Your task to perform on an android device: When is my next appointment? Image 0: 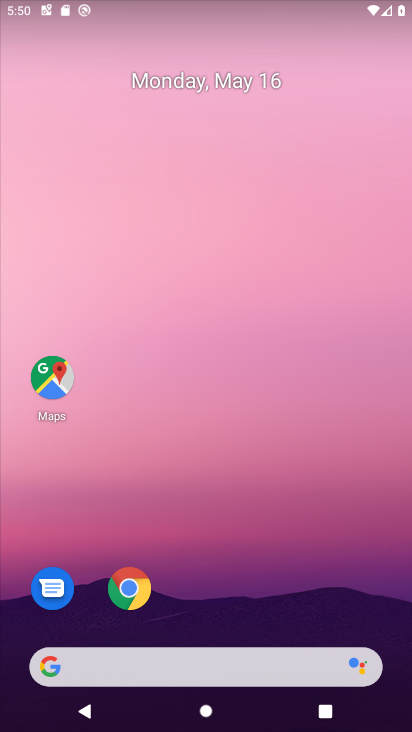
Step 0: drag from (266, 333) to (242, 20)
Your task to perform on an android device: When is my next appointment? Image 1: 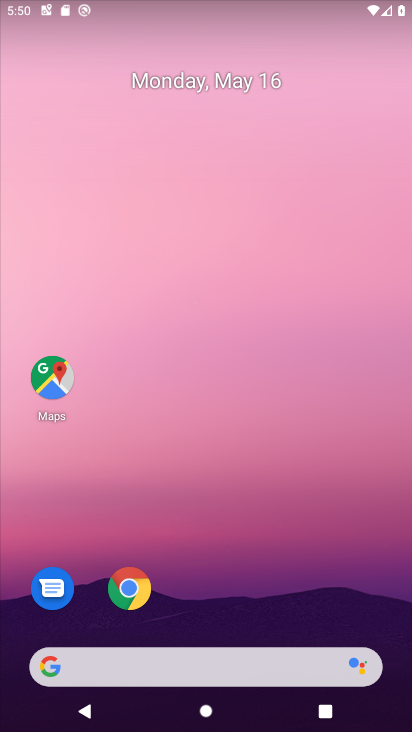
Step 1: drag from (254, 512) to (186, 44)
Your task to perform on an android device: When is my next appointment? Image 2: 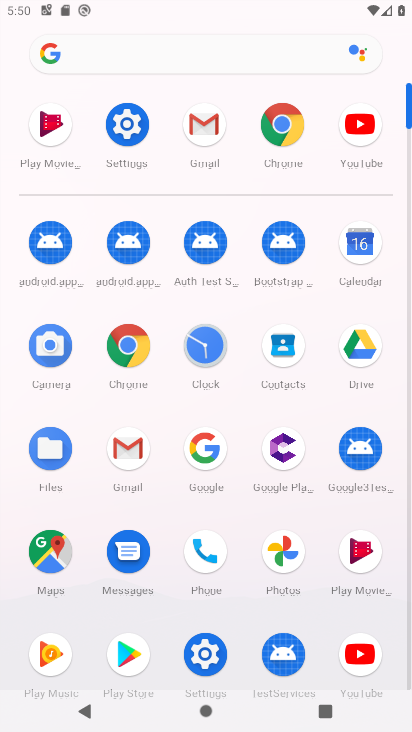
Step 2: click (352, 255)
Your task to perform on an android device: When is my next appointment? Image 3: 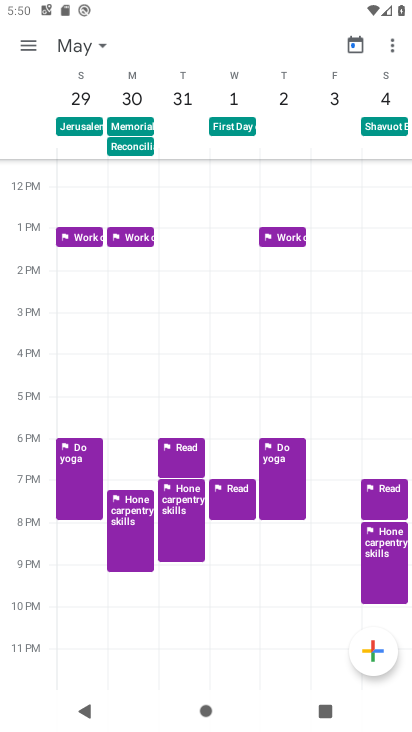
Step 3: click (86, 42)
Your task to perform on an android device: When is my next appointment? Image 4: 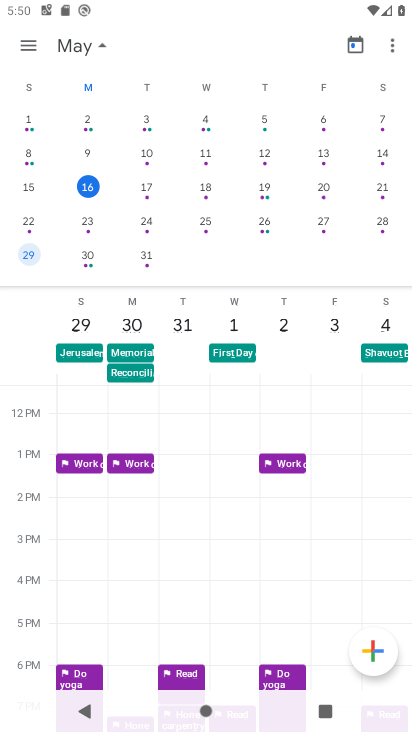
Step 4: click (29, 186)
Your task to perform on an android device: When is my next appointment? Image 5: 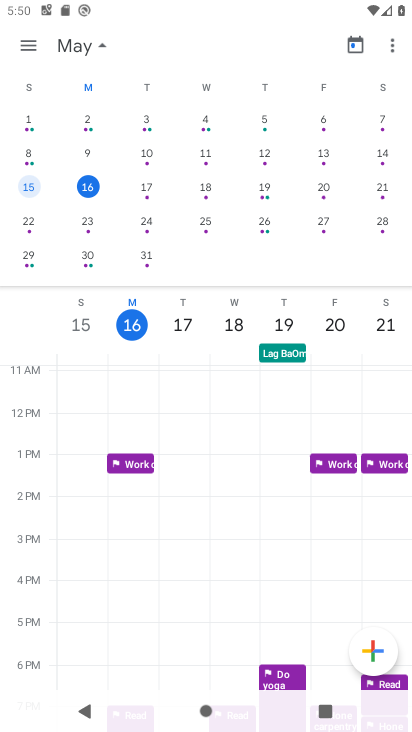
Step 5: task complete